Your task to perform on an android device: turn off javascript in the chrome app Image 0: 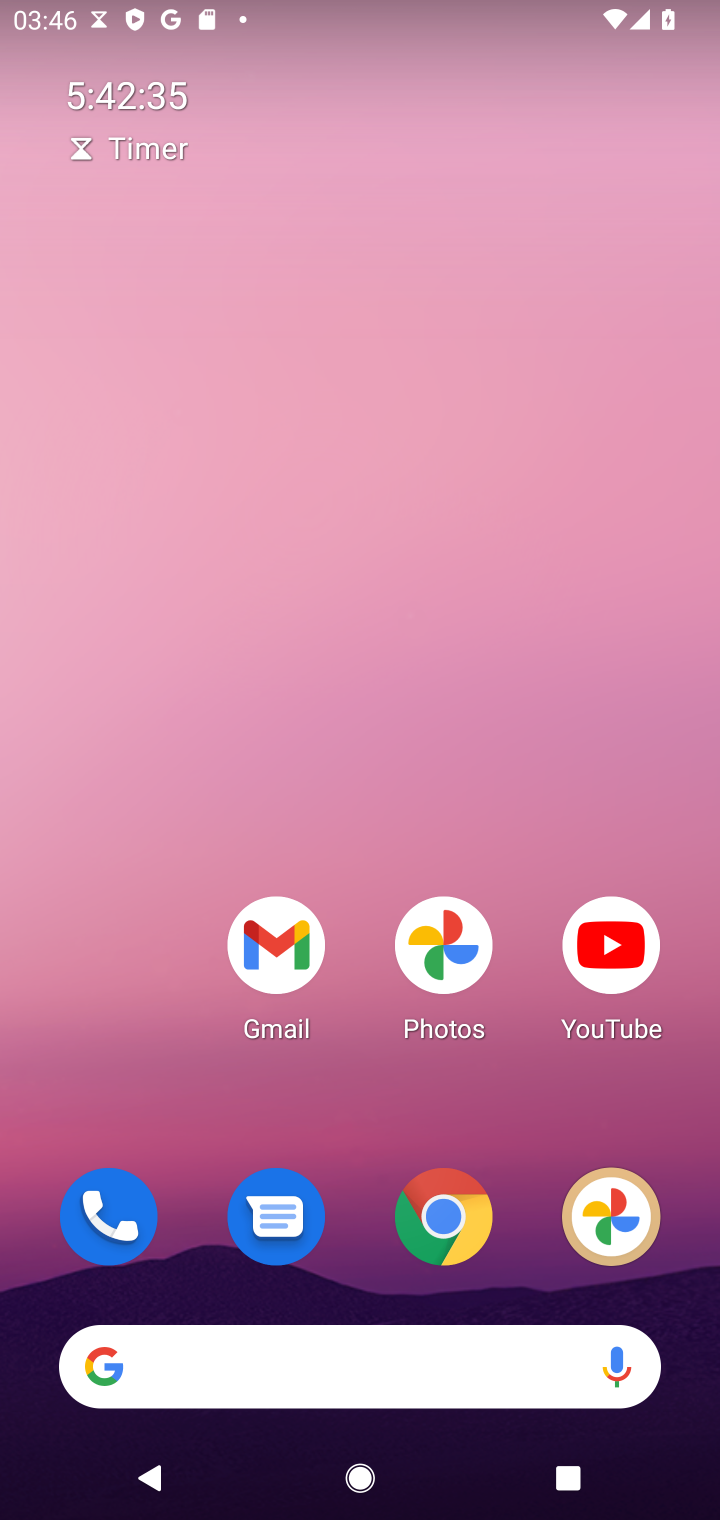
Step 0: click (430, 1244)
Your task to perform on an android device: turn off javascript in the chrome app Image 1: 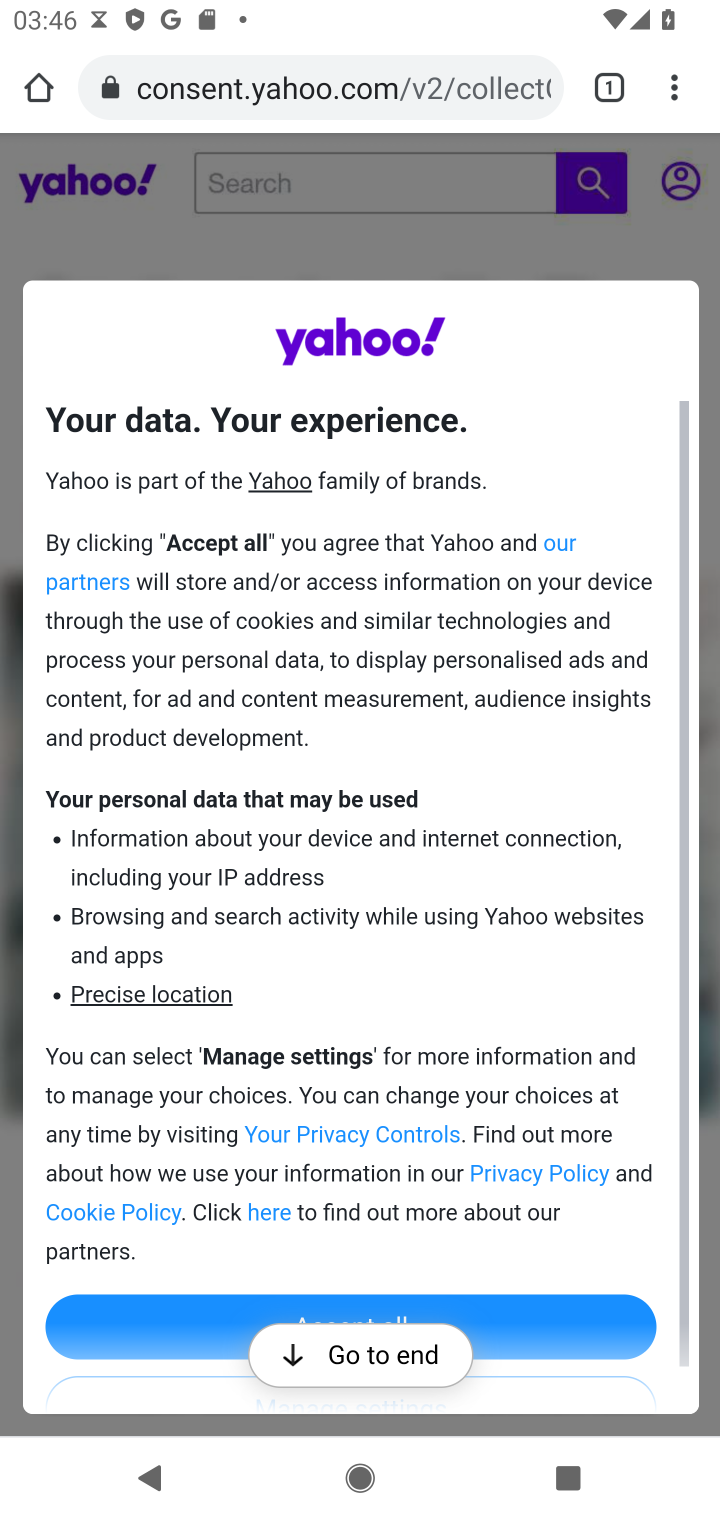
Step 1: click (662, 74)
Your task to perform on an android device: turn off javascript in the chrome app Image 2: 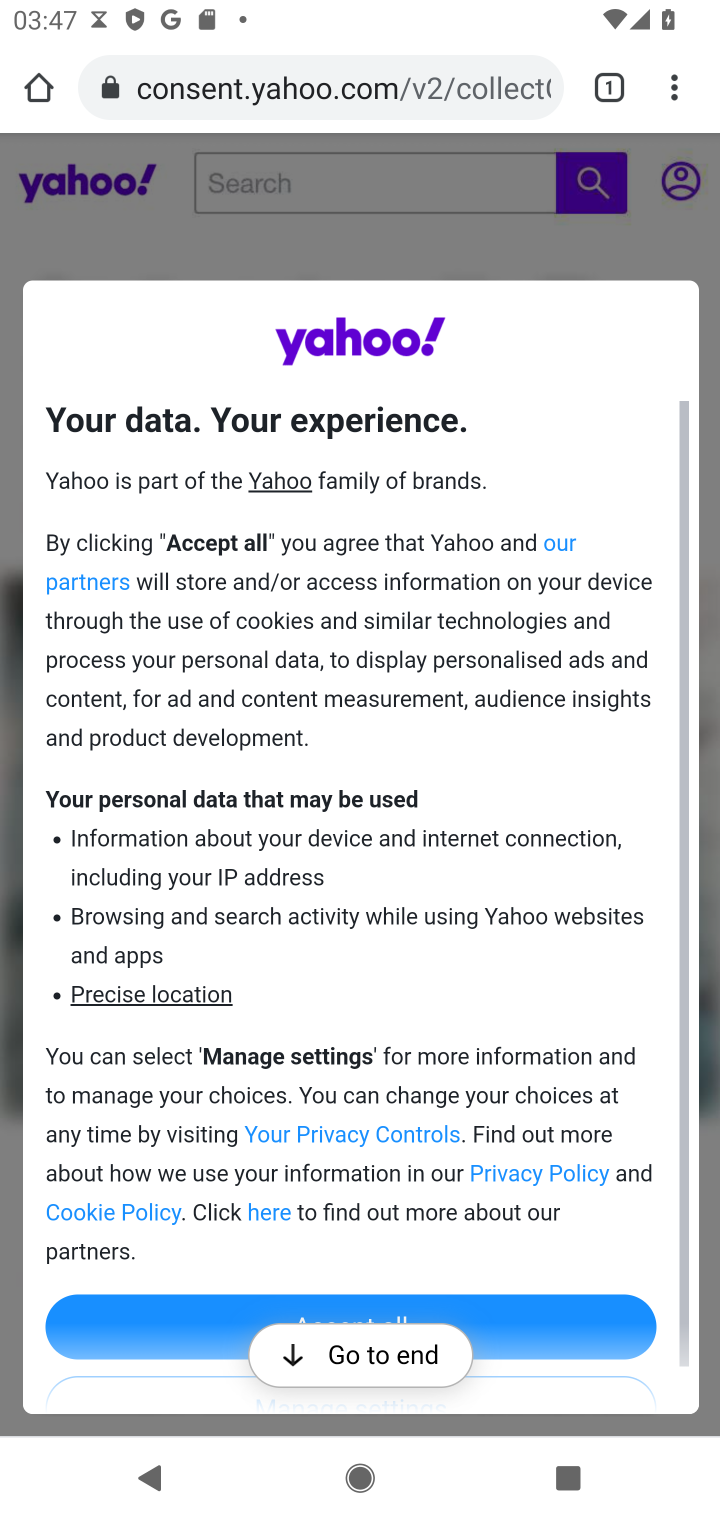
Step 2: click (679, 88)
Your task to perform on an android device: turn off javascript in the chrome app Image 3: 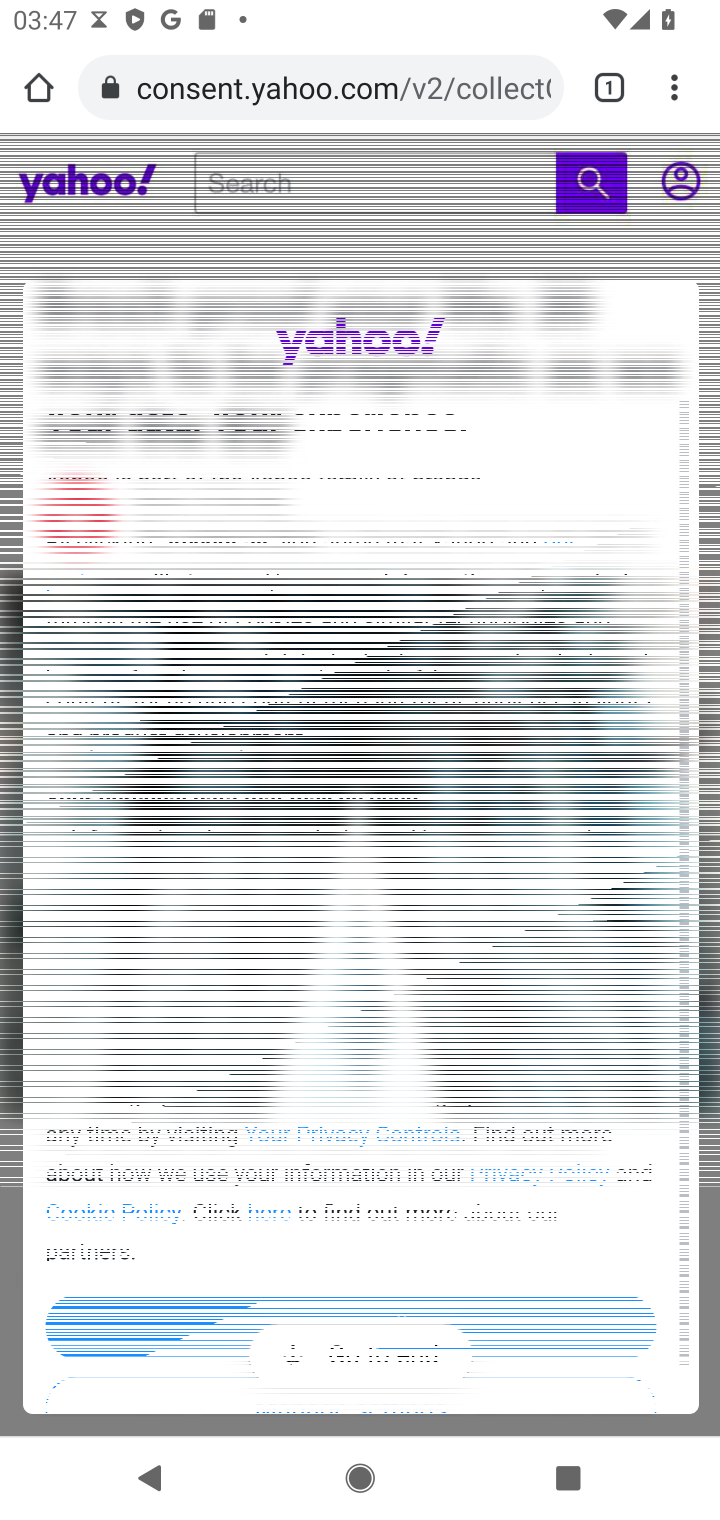
Step 3: click (688, 100)
Your task to perform on an android device: turn off javascript in the chrome app Image 4: 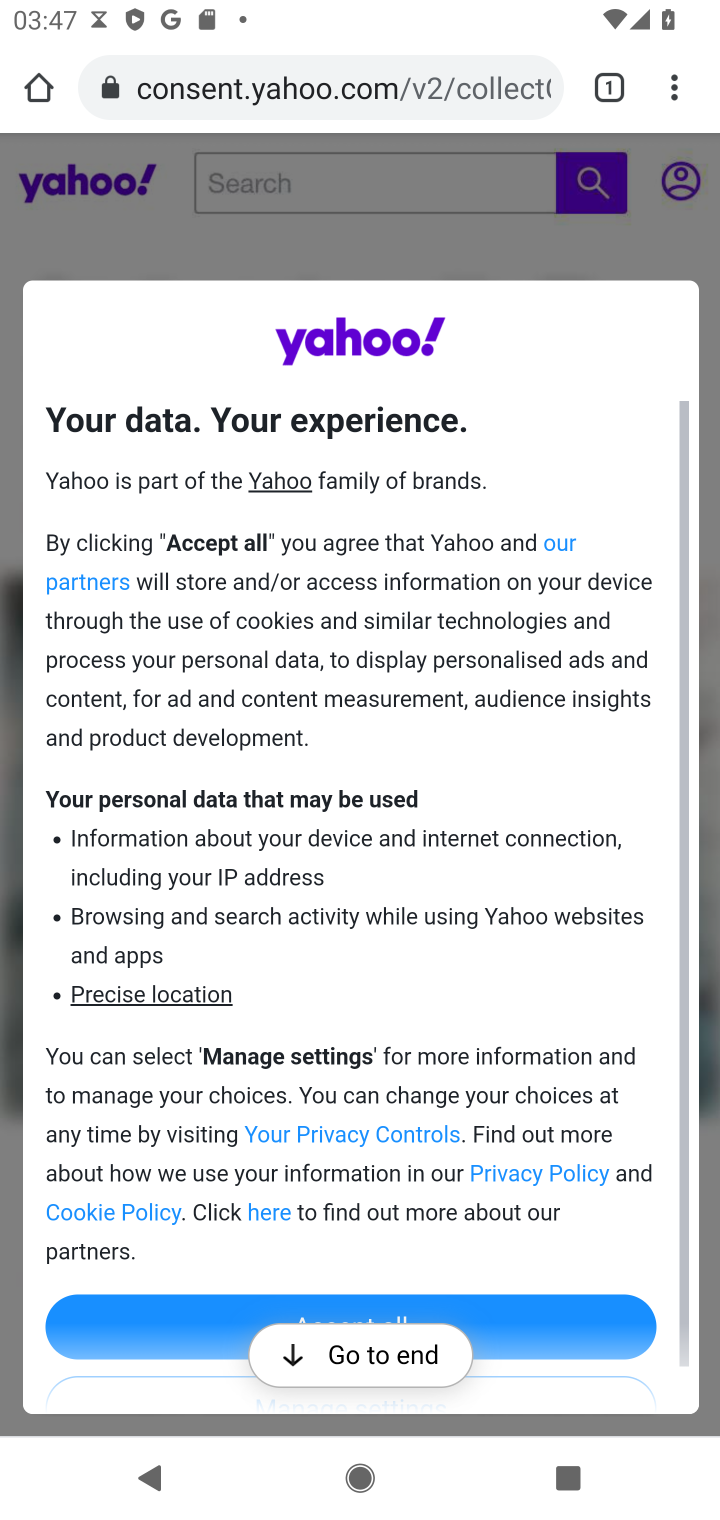
Step 4: click (688, 100)
Your task to perform on an android device: turn off javascript in the chrome app Image 5: 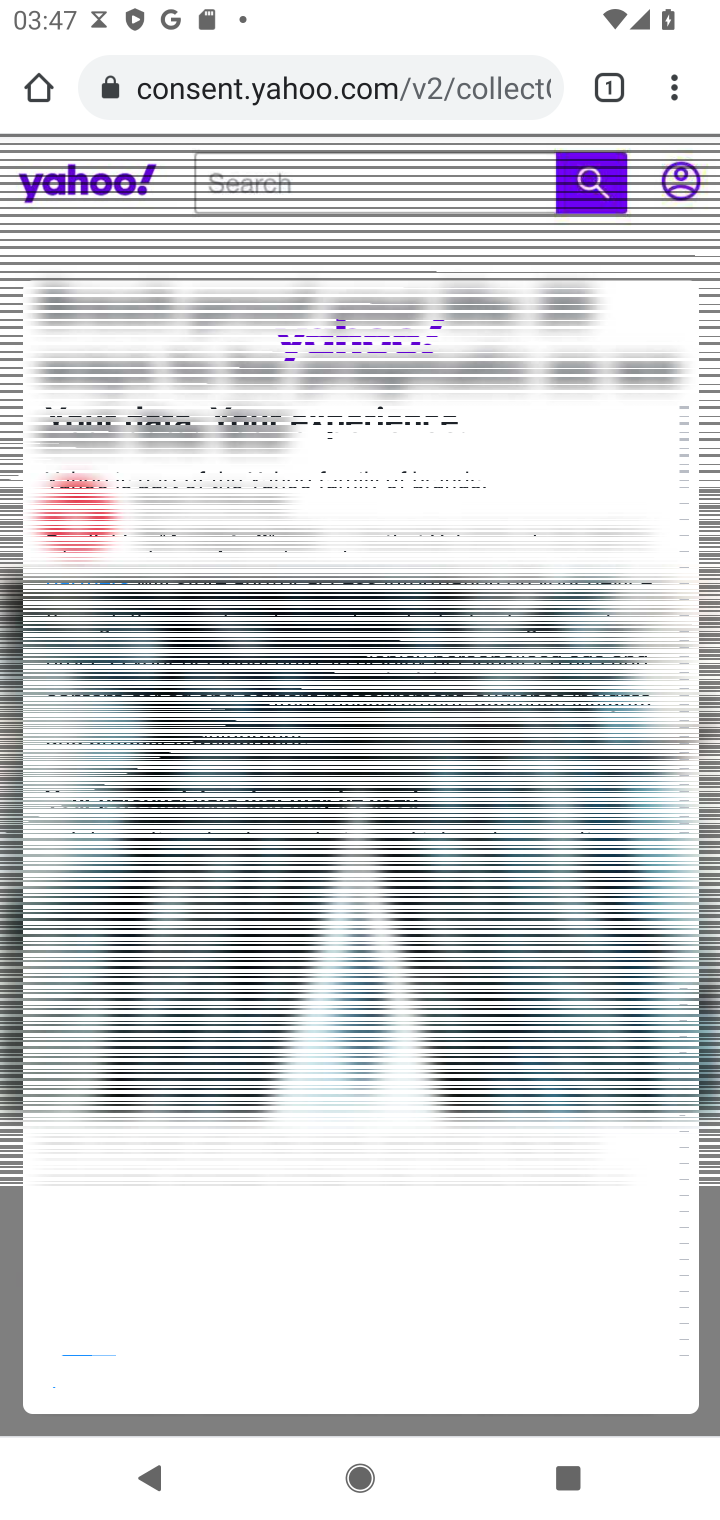
Step 5: click (688, 100)
Your task to perform on an android device: turn off javascript in the chrome app Image 6: 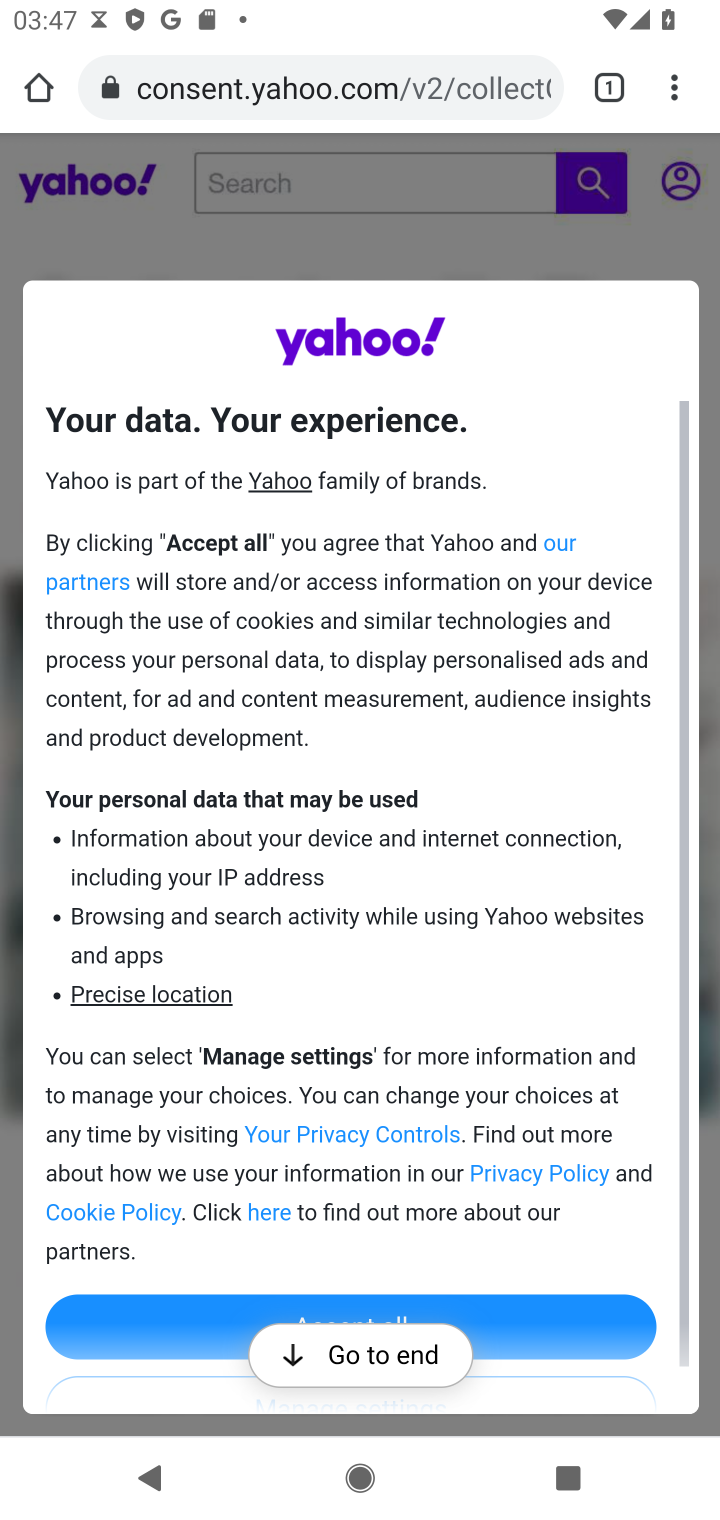
Step 6: click (688, 100)
Your task to perform on an android device: turn off javascript in the chrome app Image 7: 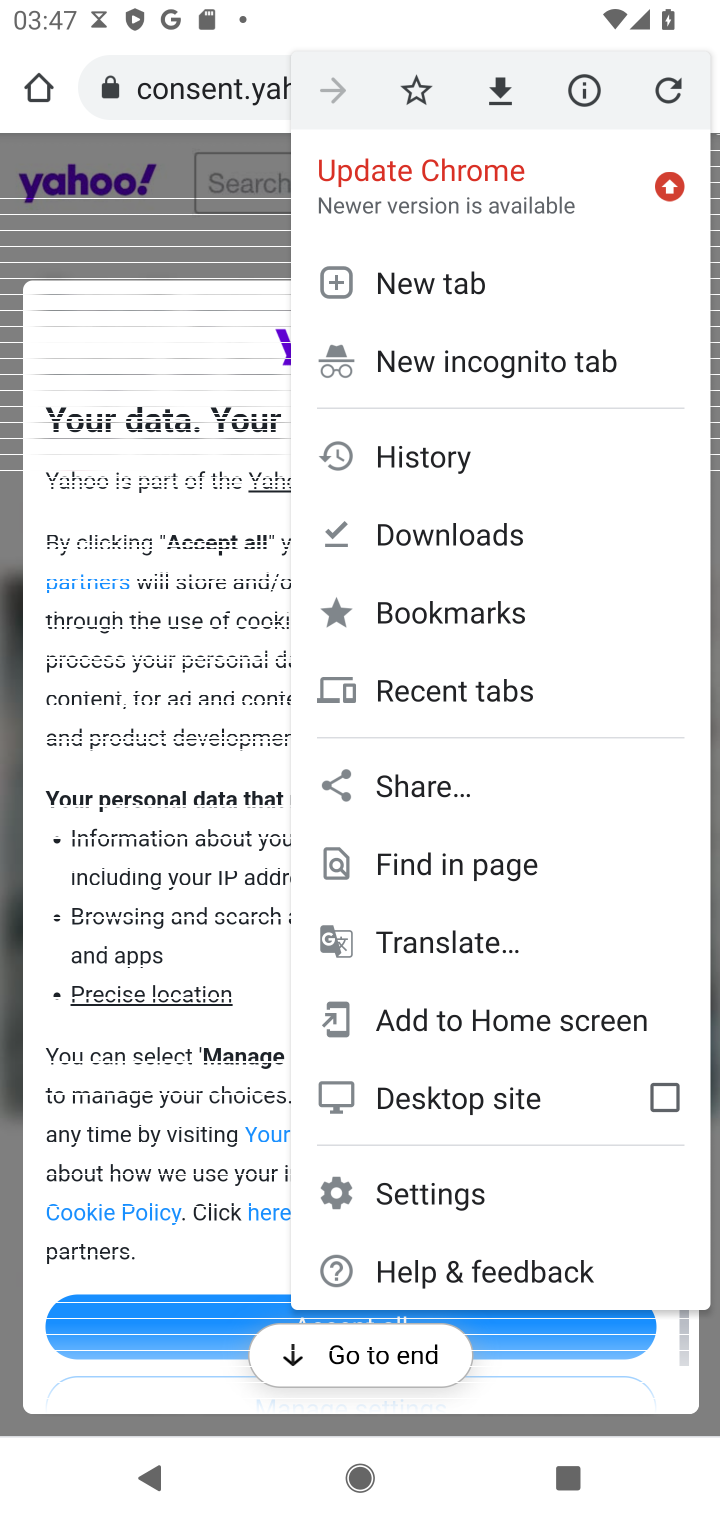
Step 7: click (432, 1181)
Your task to perform on an android device: turn off javascript in the chrome app Image 8: 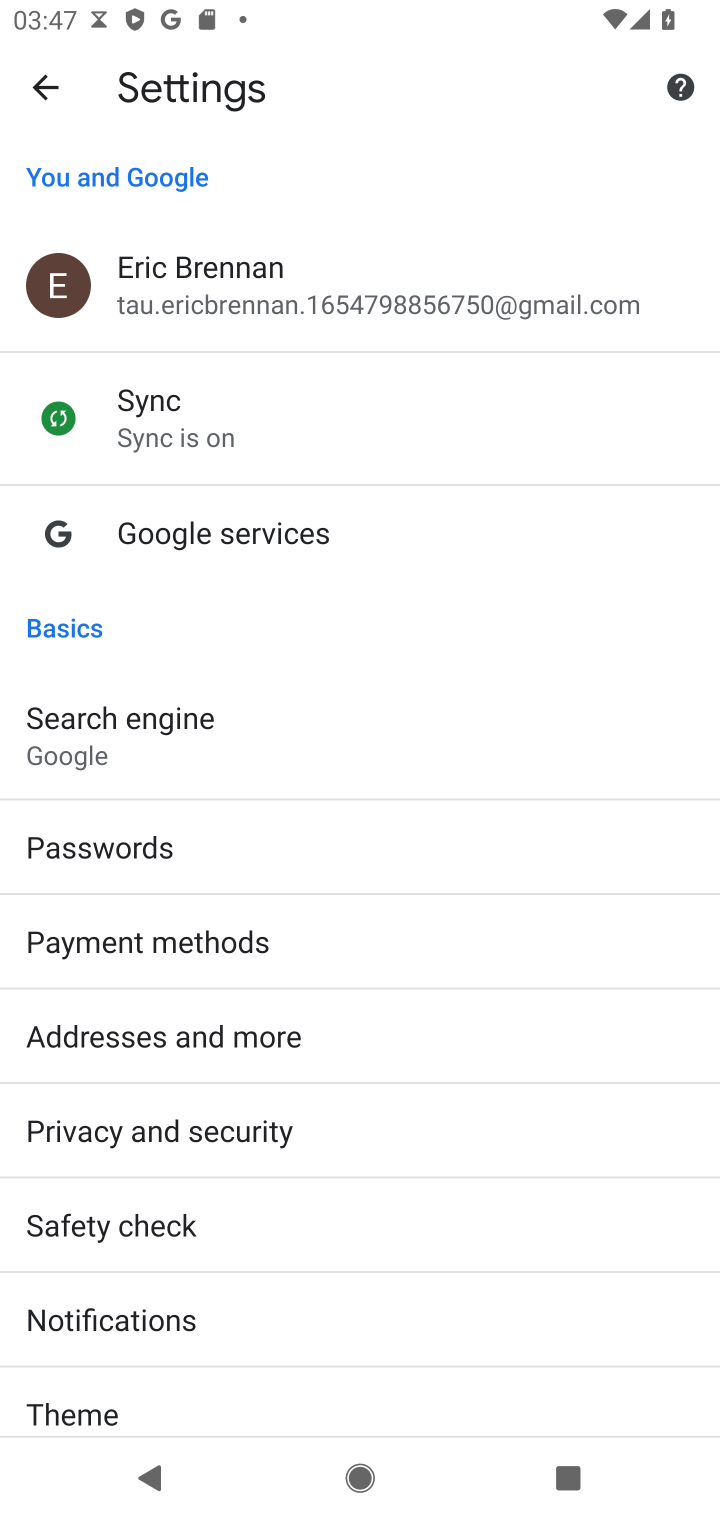
Step 8: drag from (312, 1299) to (325, 706)
Your task to perform on an android device: turn off javascript in the chrome app Image 9: 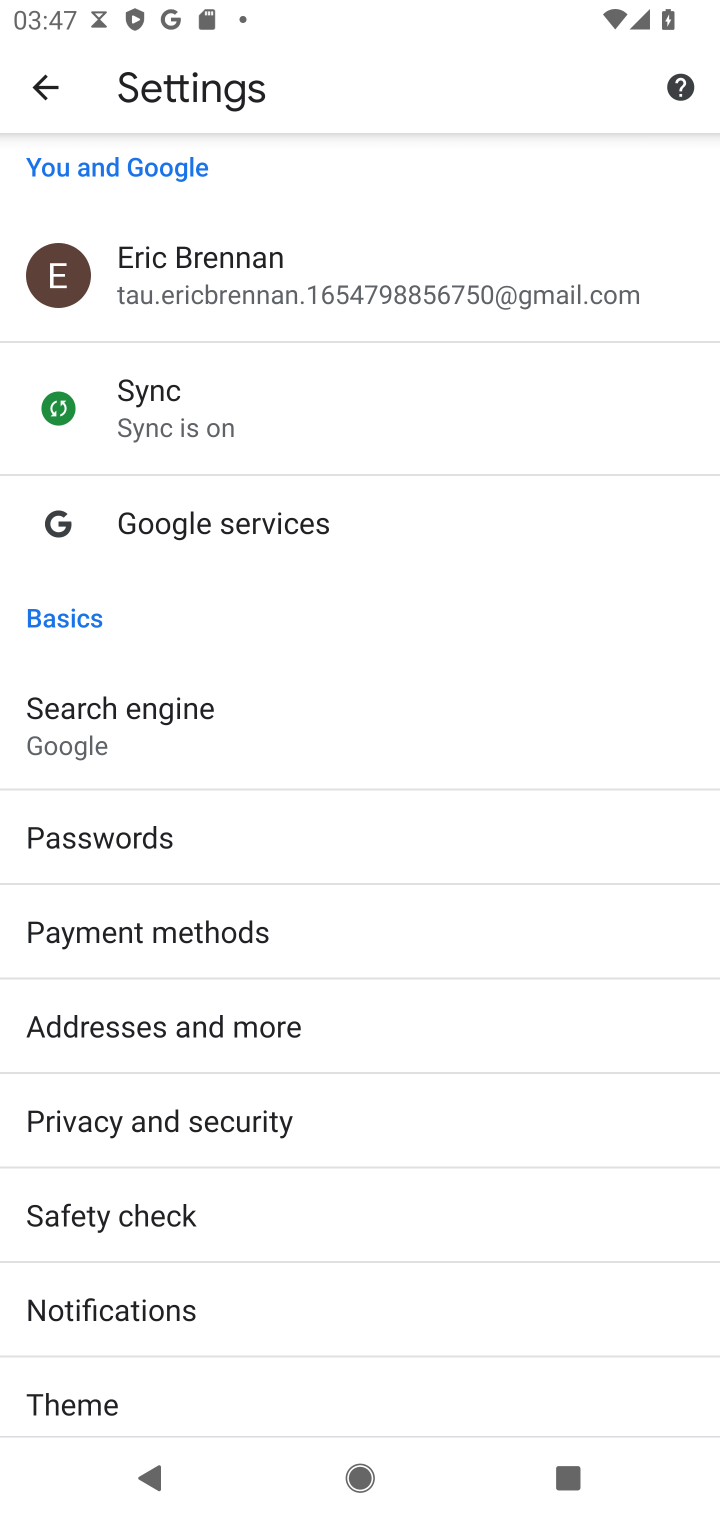
Step 9: drag from (302, 1254) to (334, 546)
Your task to perform on an android device: turn off javascript in the chrome app Image 10: 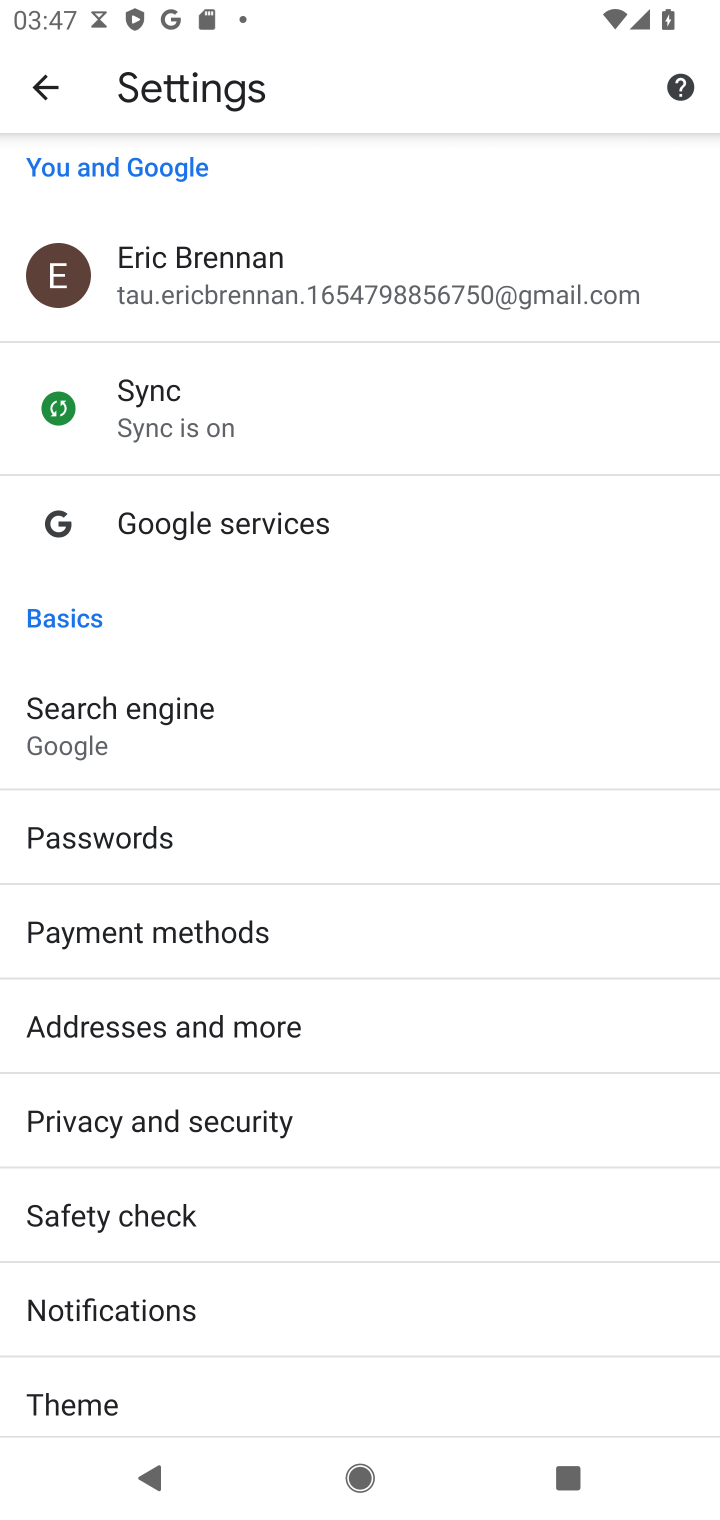
Step 10: drag from (374, 1202) to (358, 625)
Your task to perform on an android device: turn off javascript in the chrome app Image 11: 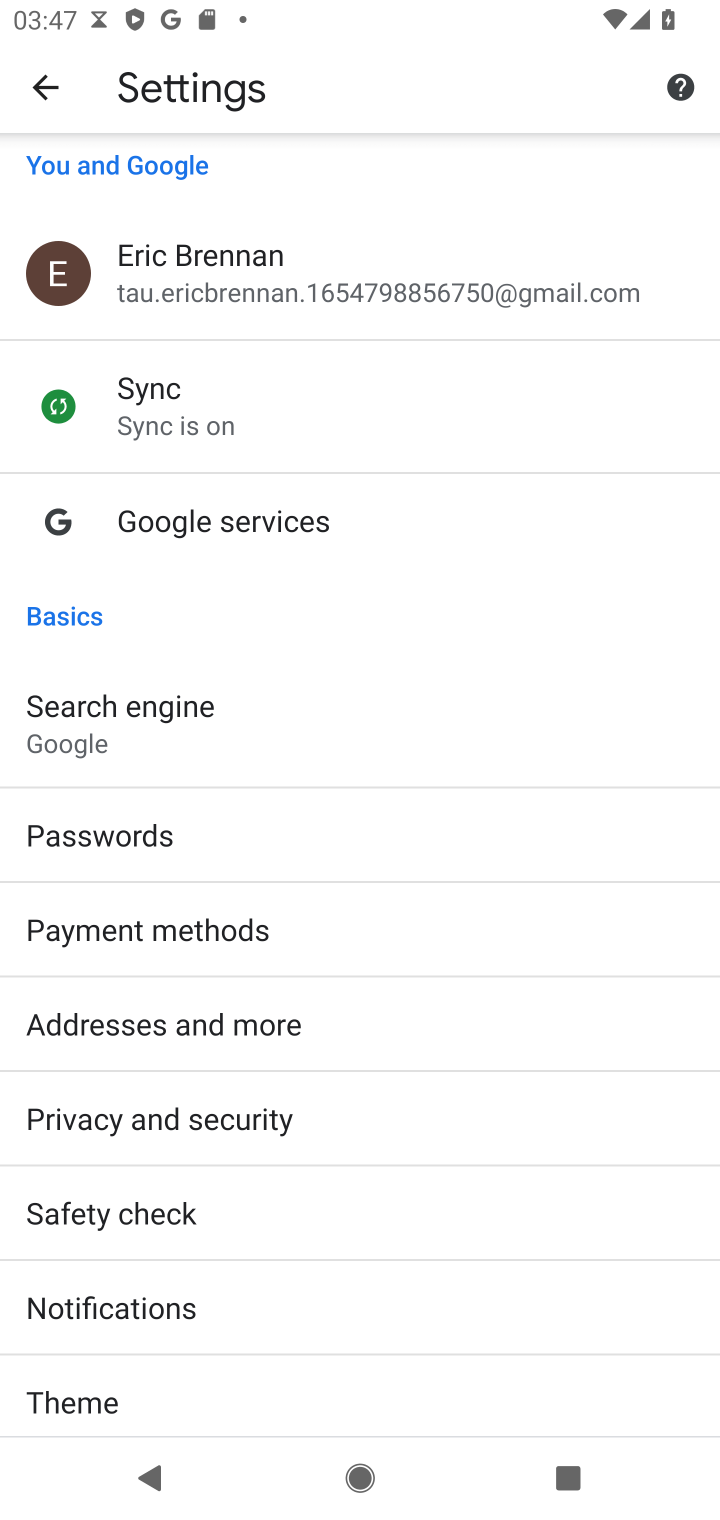
Step 11: drag from (338, 1286) to (401, 560)
Your task to perform on an android device: turn off javascript in the chrome app Image 12: 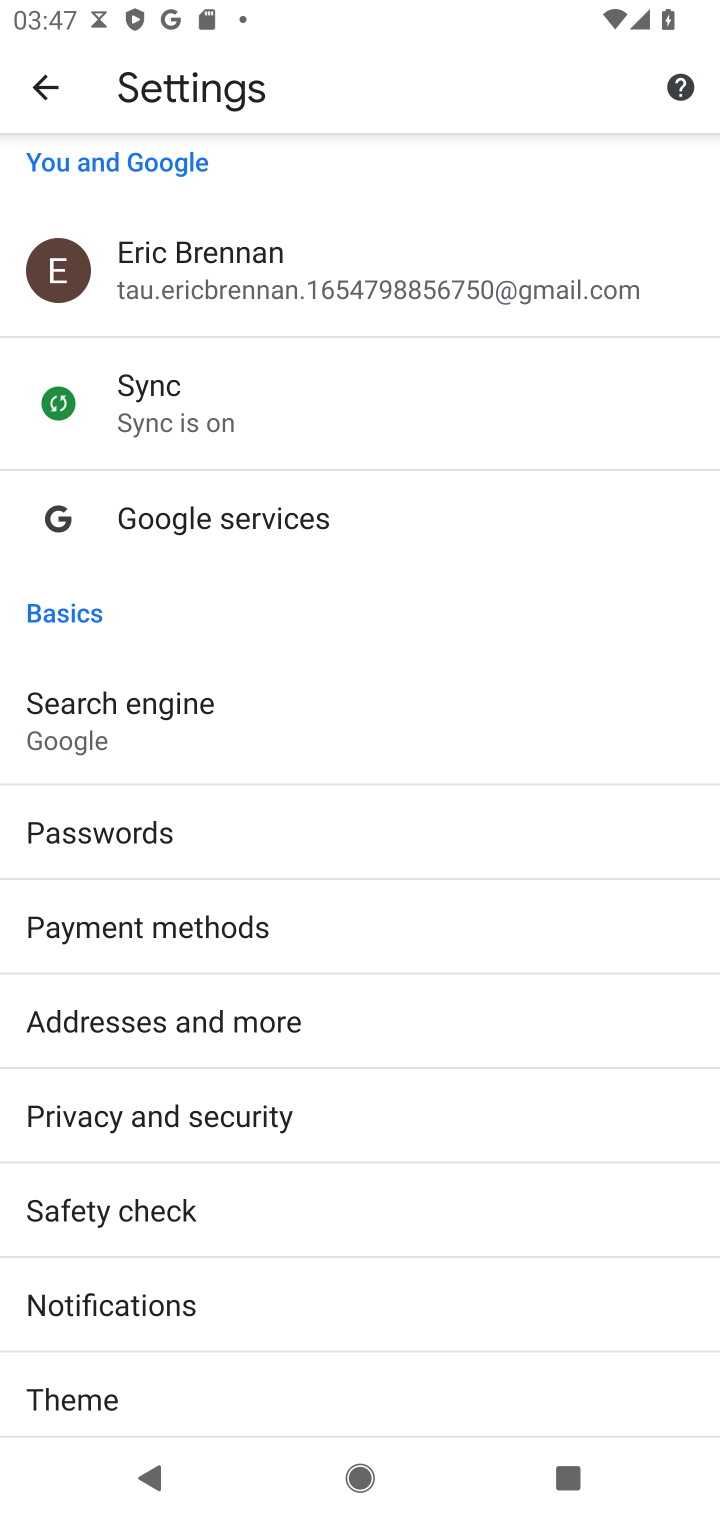
Step 12: drag from (462, 1394) to (446, 913)
Your task to perform on an android device: turn off javascript in the chrome app Image 13: 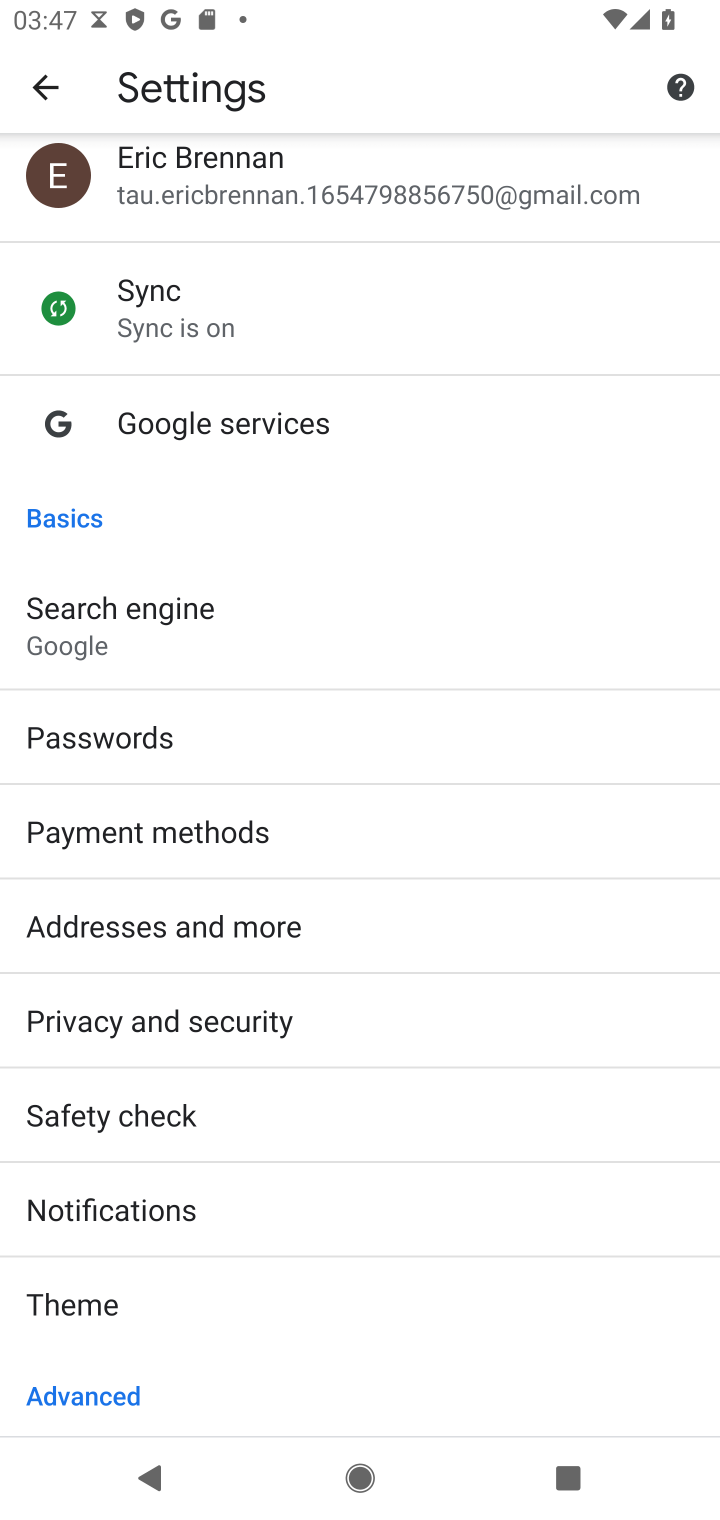
Step 13: drag from (414, 1281) to (370, 188)
Your task to perform on an android device: turn off javascript in the chrome app Image 14: 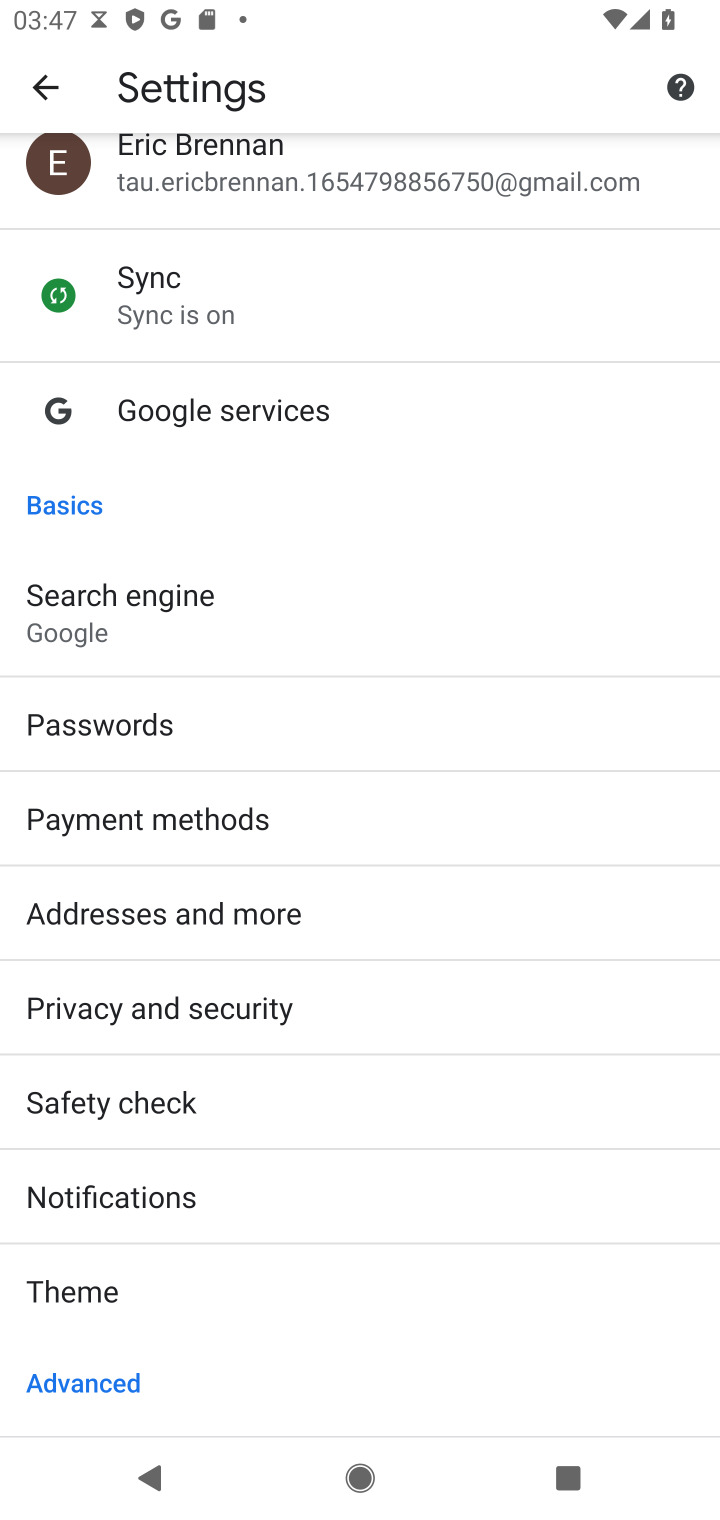
Step 14: drag from (201, 1183) to (183, 420)
Your task to perform on an android device: turn off javascript in the chrome app Image 15: 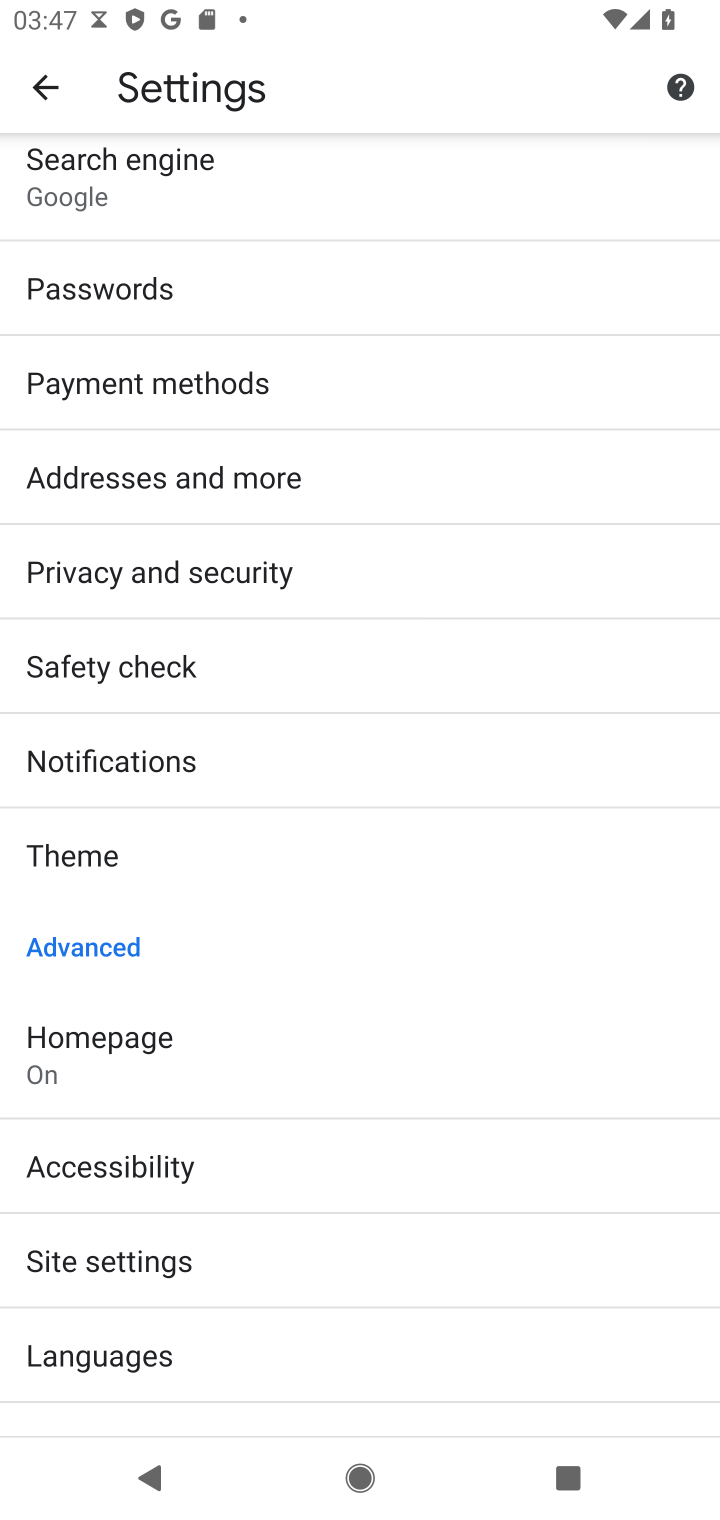
Step 15: click (228, 1241)
Your task to perform on an android device: turn off javascript in the chrome app Image 16: 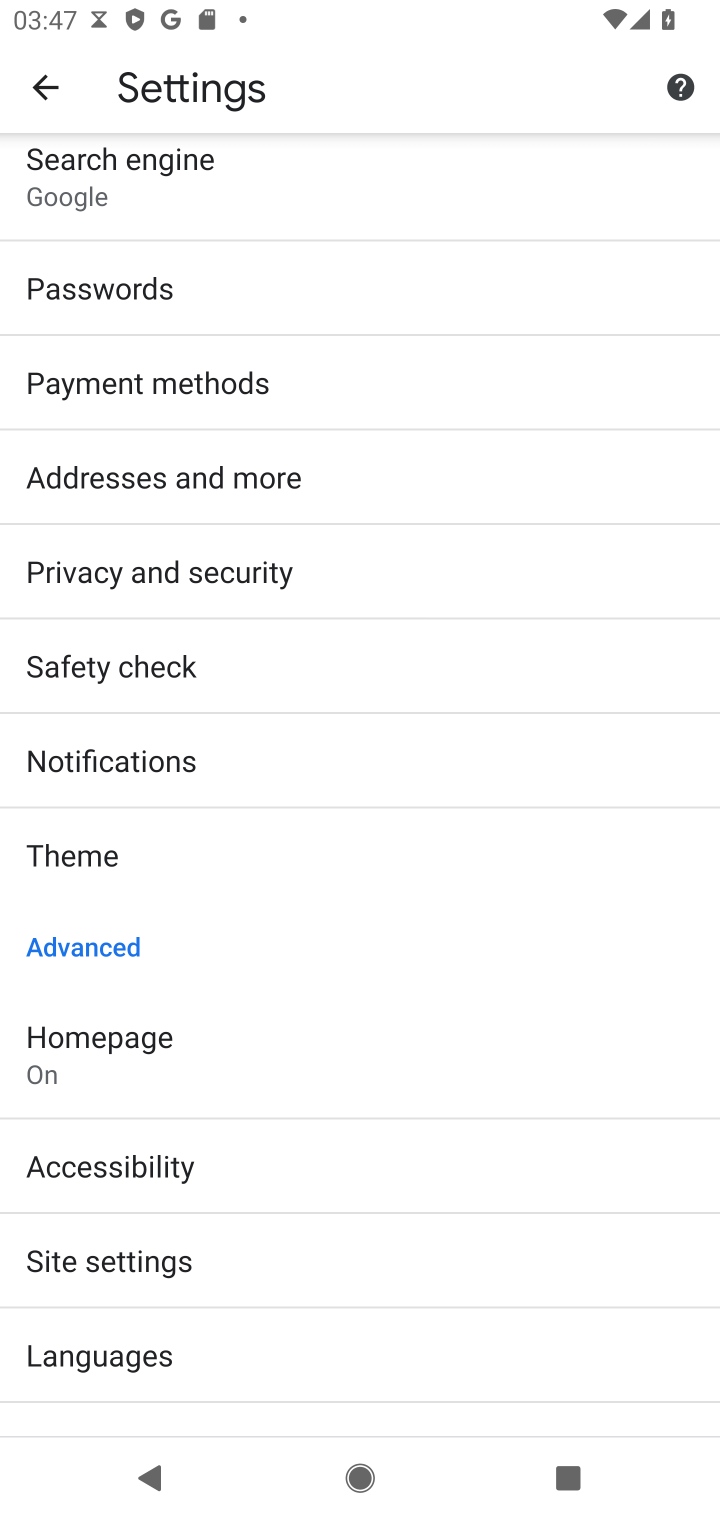
Step 16: click (228, 1241)
Your task to perform on an android device: turn off javascript in the chrome app Image 17: 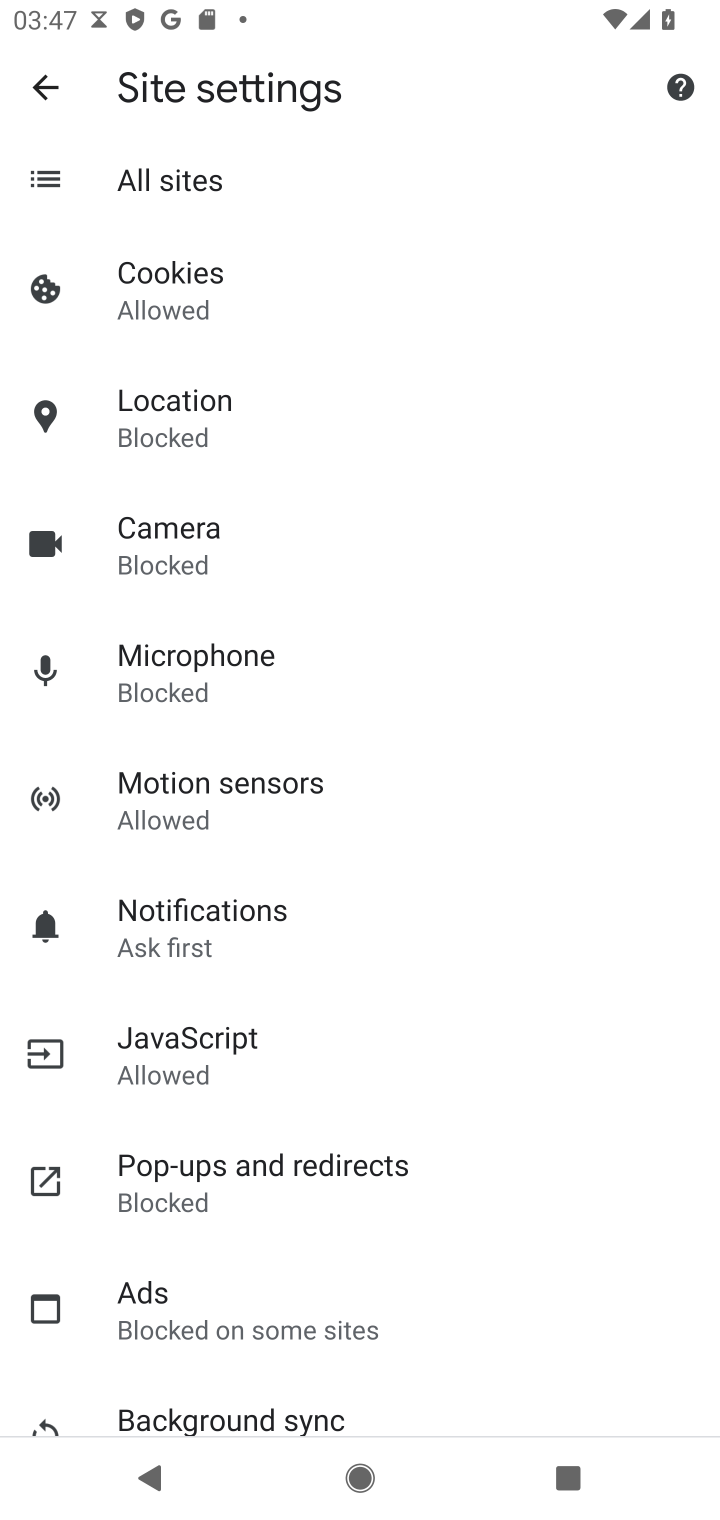
Step 17: click (225, 1065)
Your task to perform on an android device: turn off javascript in the chrome app Image 18: 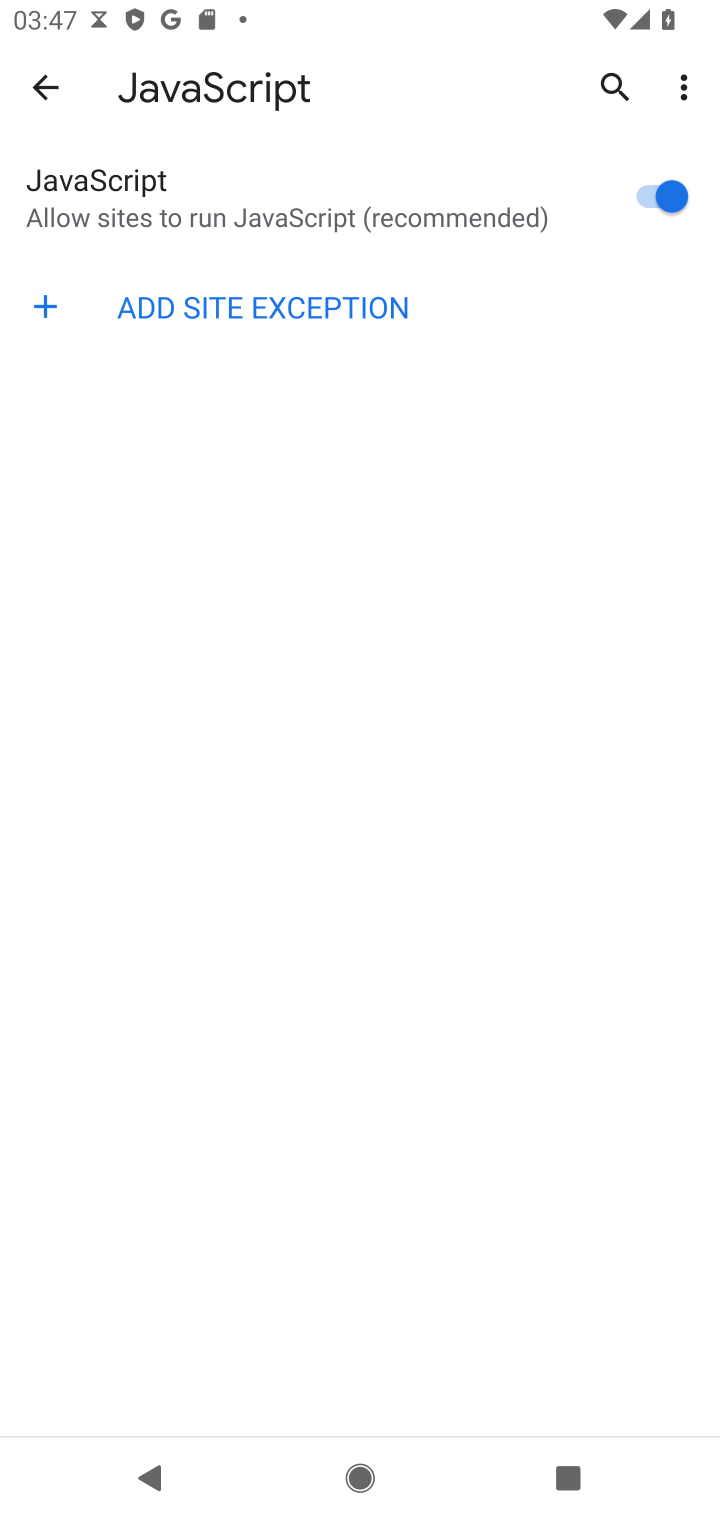
Step 18: click (639, 200)
Your task to perform on an android device: turn off javascript in the chrome app Image 19: 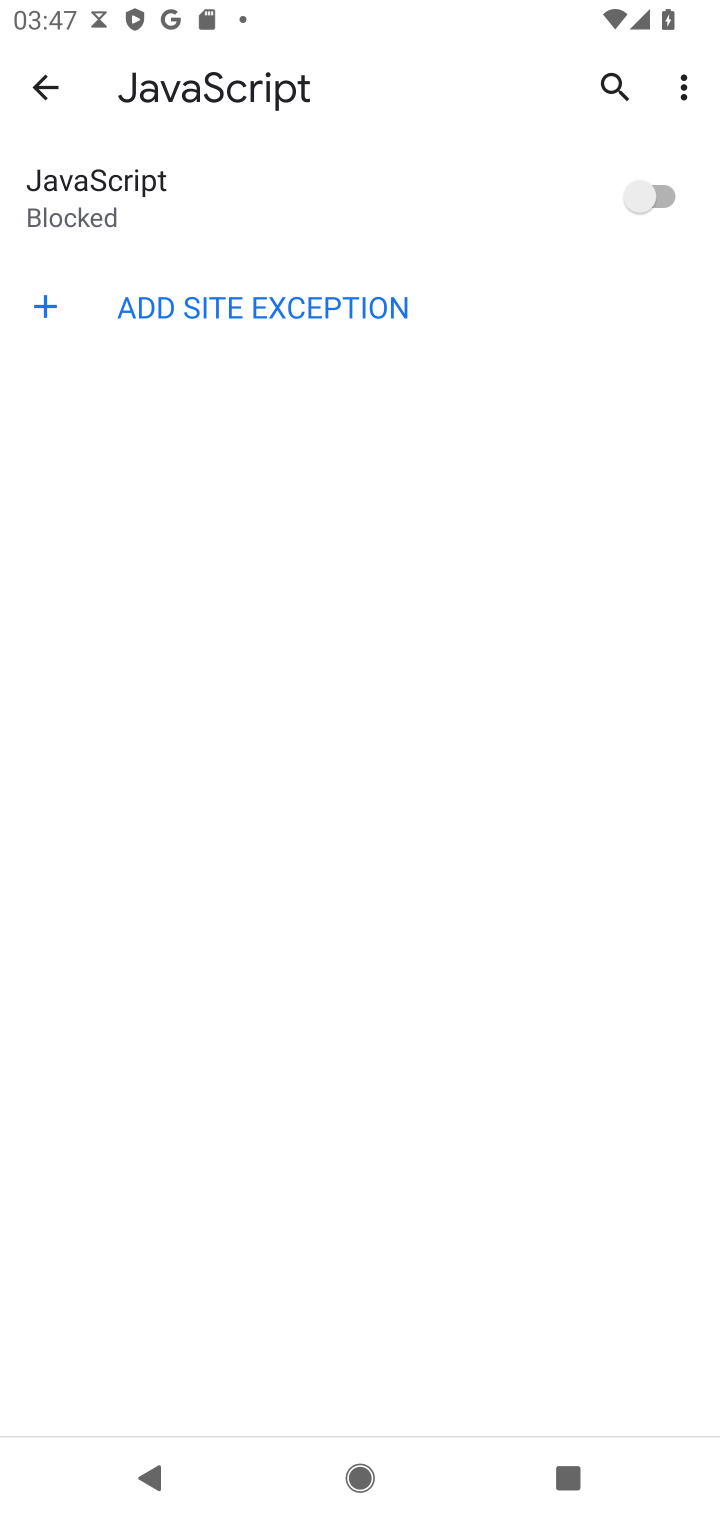
Step 19: task complete